Your task to perform on an android device: move a message to another label in the gmail app Image 0: 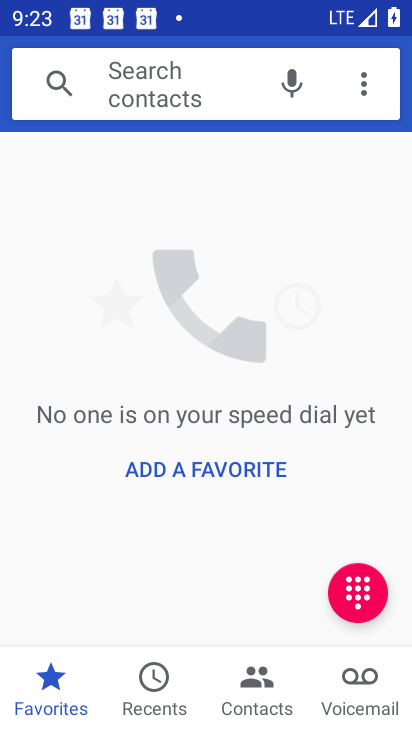
Step 0: press back button
Your task to perform on an android device: move a message to another label in the gmail app Image 1: 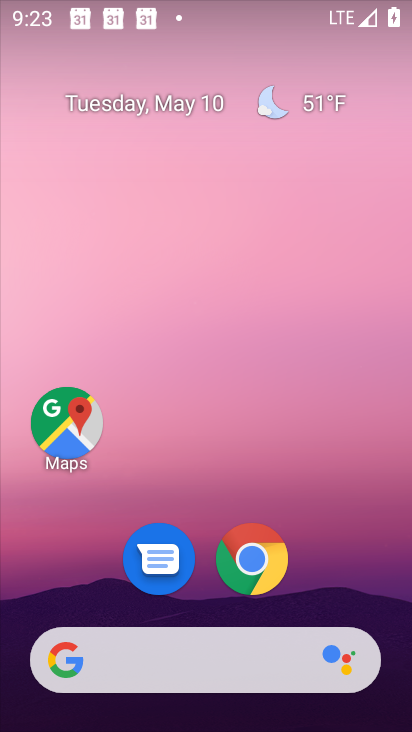
Step 1: drag from (358, 535) to (267, 183)
Your task to perform on an android device: move a message to another label in the gmail app Image 2: 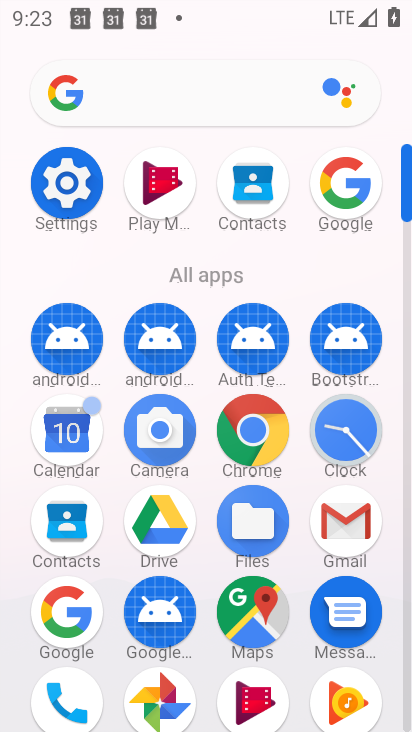
Step 2: drag from (195, 519) to (215, 320)
Your task to perform on an android device: move a message to another label in the gmail app Image 3: 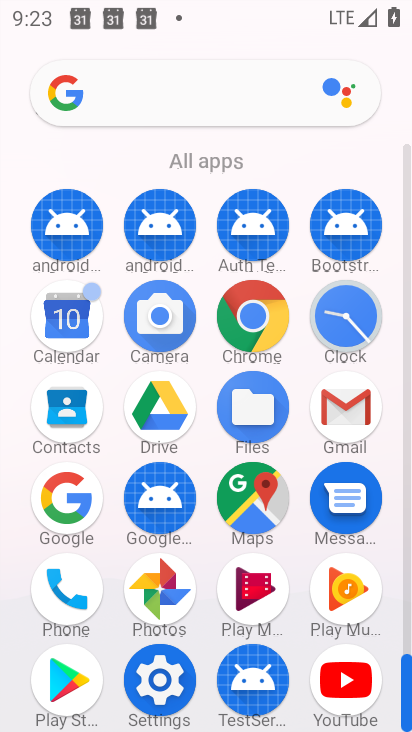
Step 3: click (343, 410)
Your task to perform on an android device: move a message to another label in the gmail app Image 4: 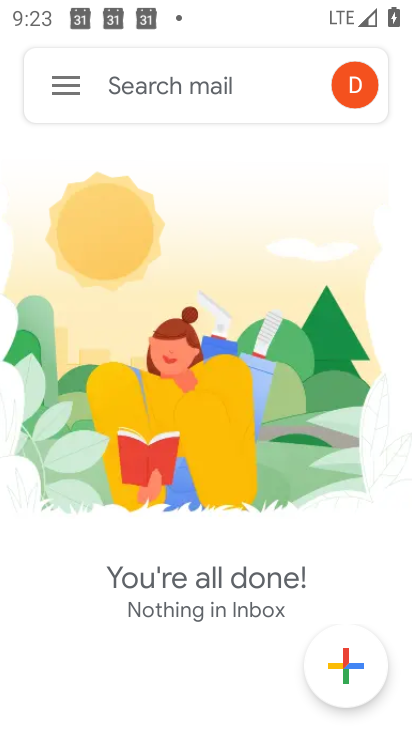
Step 4: click (62, 83)
Your task to perform on an android device: move a message to another label in the gmail app Image 5: 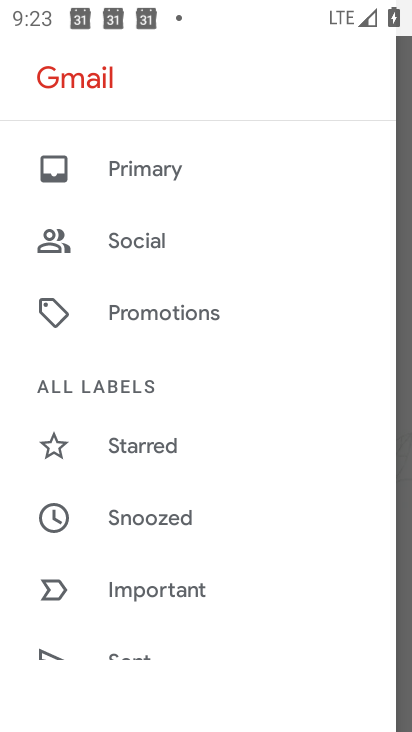
Step 5: drag from (188, 469) to (229, 366)
Your task to perform on an android device: move a message to another label in the gmail app Image 6: 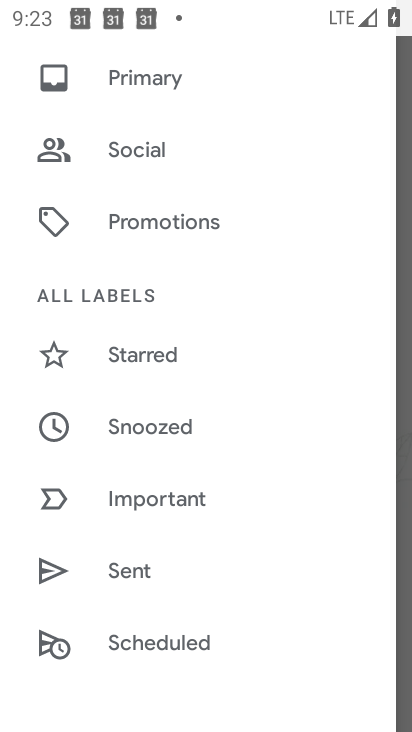
Step 6: drag from (171, 472) to (210, 397)
Your task to perform on an android device: move a message to another label in the gmail app Image 7: 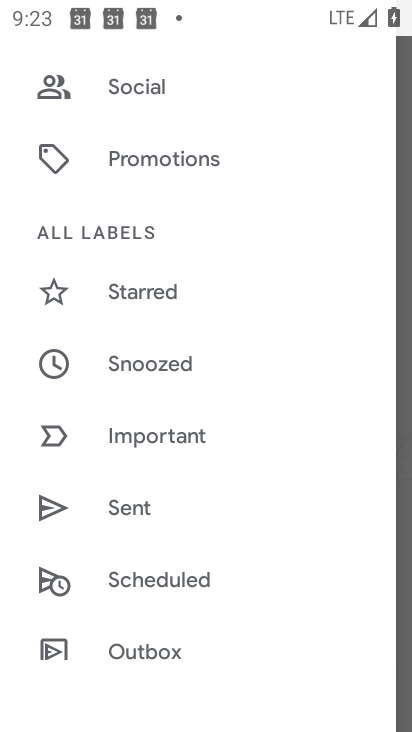
Step 7: drag from (159, 522) to (240, 426)
Your task to perform on an android device: move a message to another label in the gmail app Image 8: 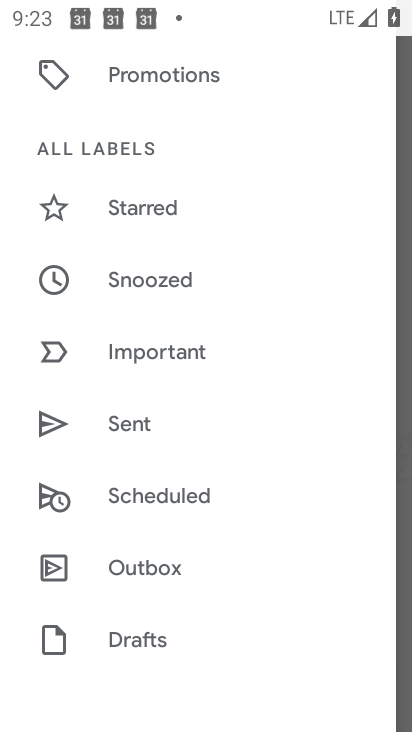
Step 8: drag from (139, 597) to (188, 467)
Your task to perform on an android device: move a message to another label in the gmail app Image 9: 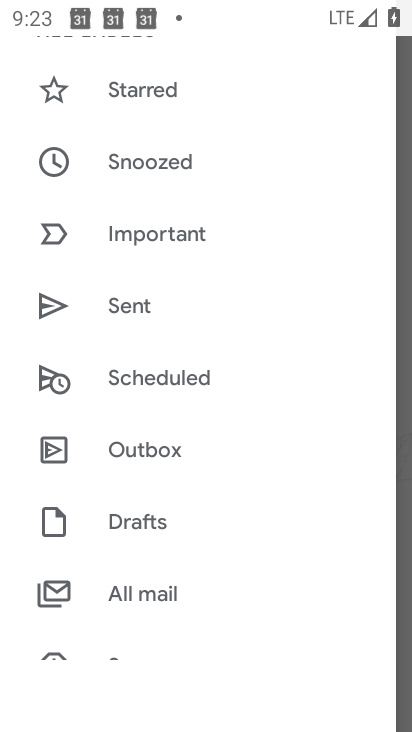
Step 9: click (148, 588)
Your task to perform on an android device: move a message to another label in the gmail app Image 10: 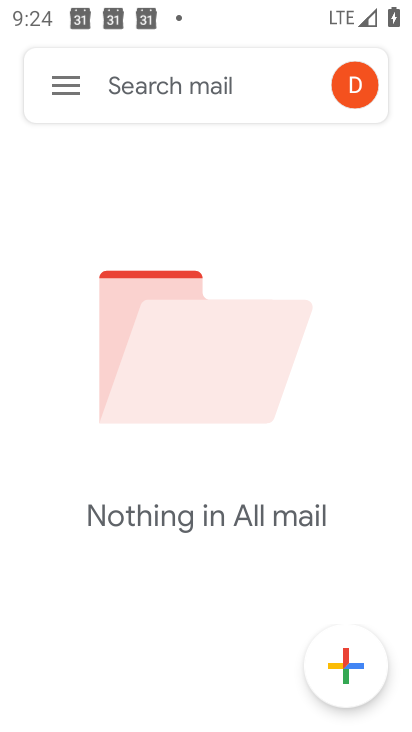
Step 10: click (73, 85)
Your task to perform on an android device: move a message to another label in the gmail app Image 11: 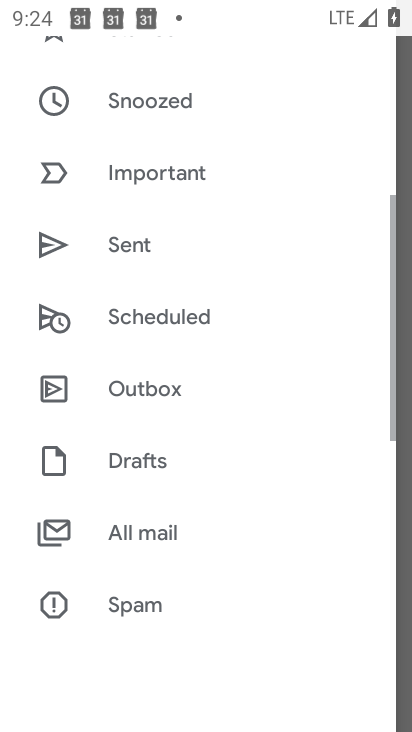
Step 11: drag from (139, 195) to (232, 366)
Your task to perform on an android device: move a message to another label in the gmail app Image 12: 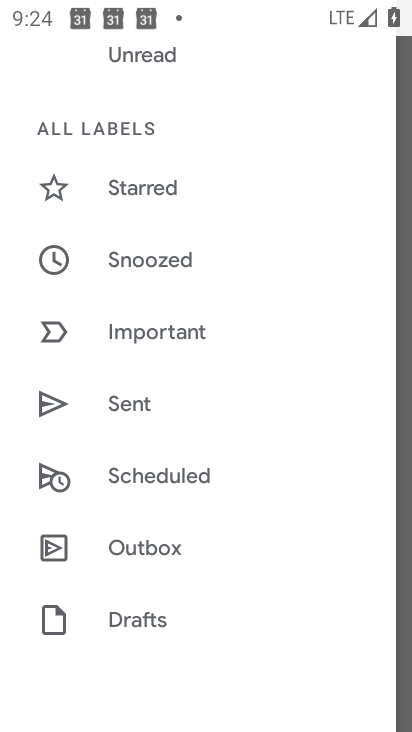
Step 12: drag from (211, 225) to (249, 385)
Your task to perform on an android device: move a message to another label in the gmail app Image 13: 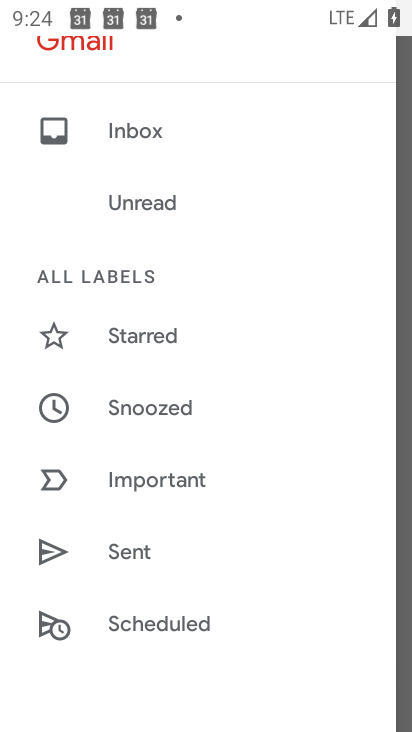
Step 13: click (146, 138)
Your task to perform on an android device: move a message to another label in the gmail app Image 14: 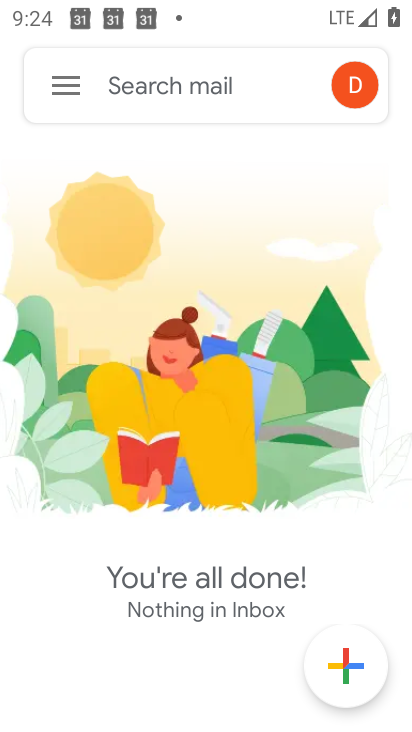
Step 14: task complete